Your task to perform on an android device: Open sound settings Image 0: 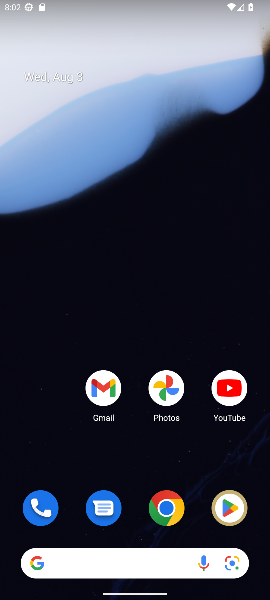
Step 0: drag from (128, 540) to (199, 48)
Your task to perform on an android device: Open sound settings Image 1: 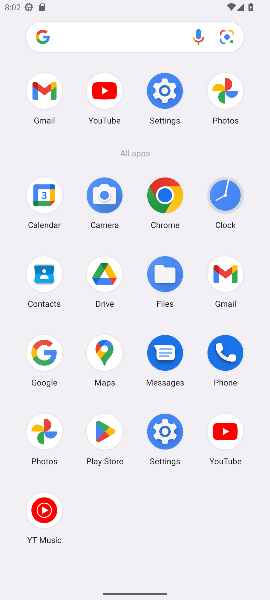
Step 1: click (162, 439)
Your task to perform on an android device: Open sound settings Image 2: 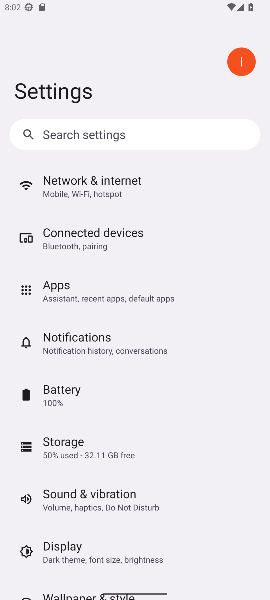
Step 2: click (84, 506)
Your task to perform on an android device: Open sound settings Image 3: 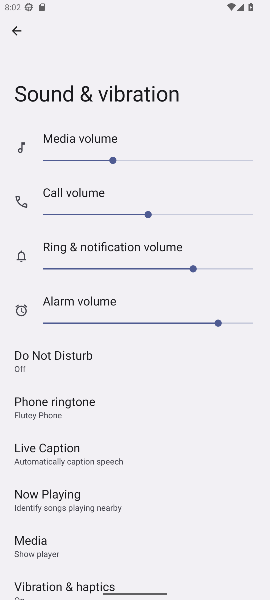
Step 3: task complete